Your task to perform on an android device: Go to Amazon Image 0: 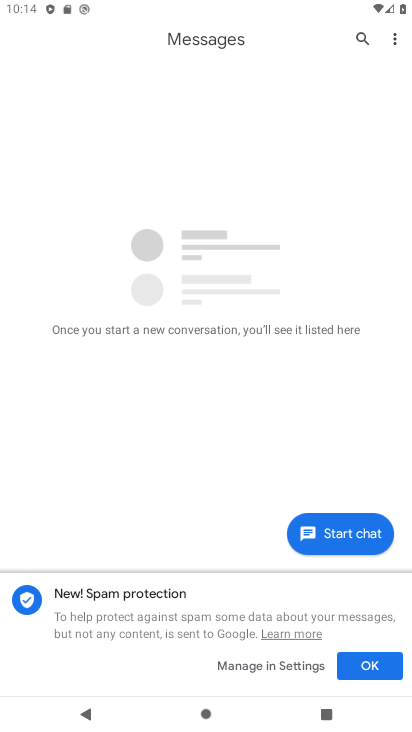
Step 0: press home button
Your task to perform on an android device: Go to Amazon Image 1: 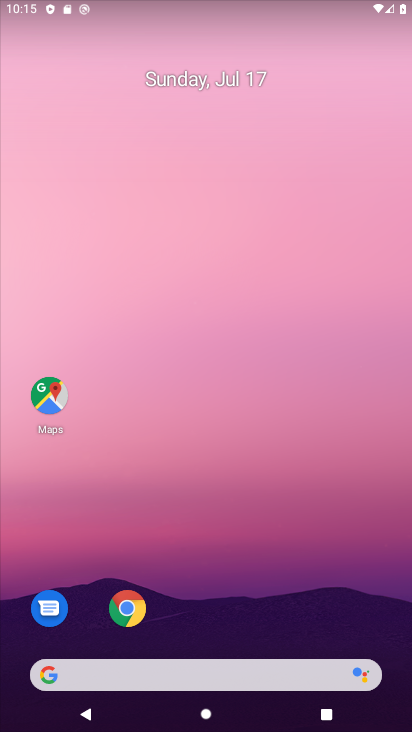
Step 1: click (105, 669)
Your task to perform on an android device: Go to Amazon Image 2: 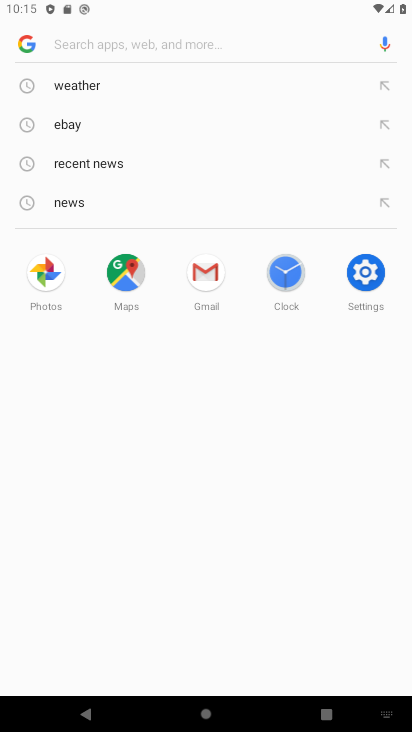
Step 2: type "Amazon"
Your task to perform on an android device: Go to Amazon Image 3: 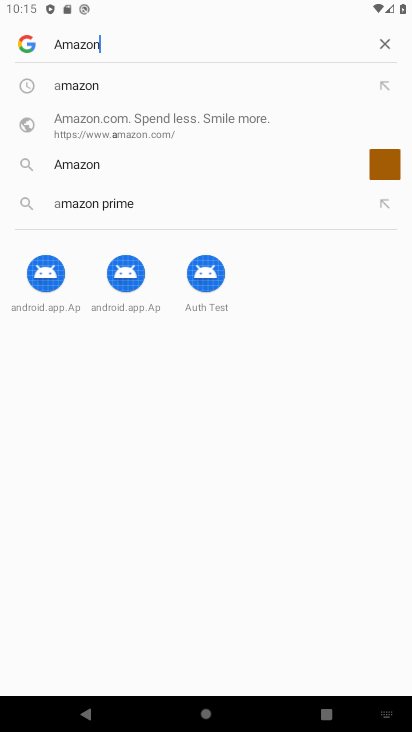
Step 3: type ""
Your task to perform on an android device: Go to Amazon Image 4: 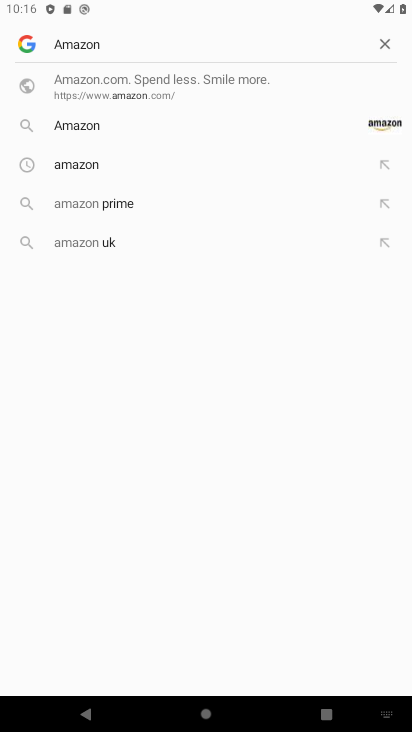
Step 4: task complete